Your task to perform on an android device: delete browsing data in the chrome app Image 0: 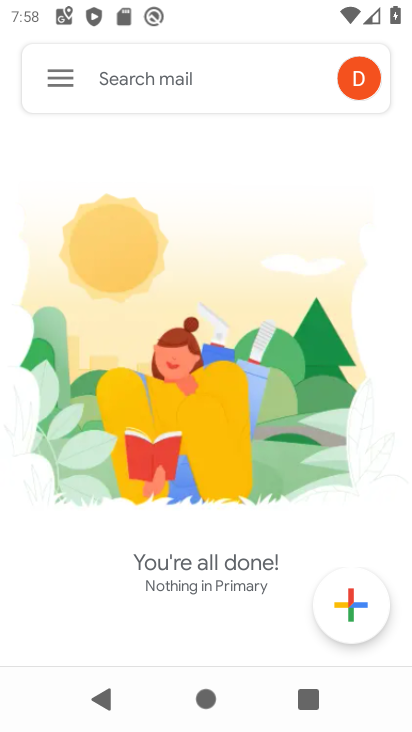
Step 0: press home button
Your task to perform on an android device: delete browsing data in the chrome app Image 1: 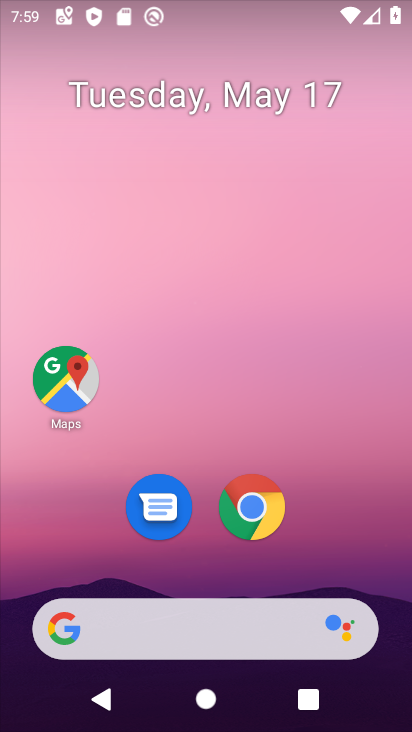
Step 1: click (260, 522)
Your task to perform on an android device: delete browsing data in the chrome app Image 2: 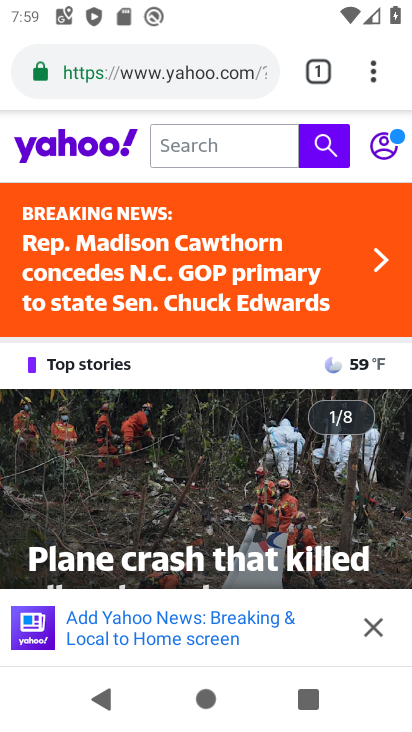
Step 2: click (379, 71)
Your task to perform on an android device: delete browsing data in the chrome app Image 3: 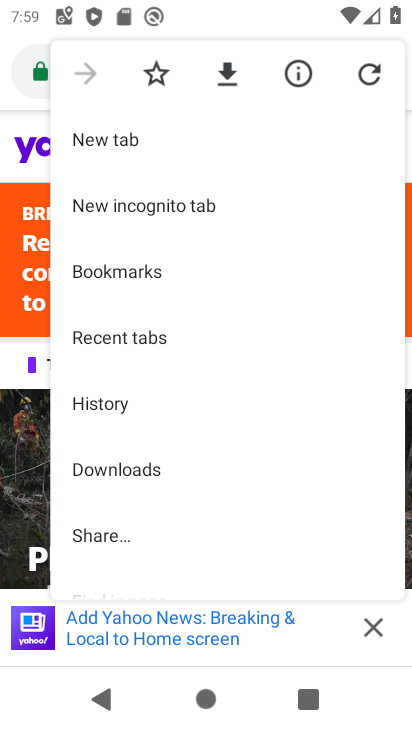
Step 3: drag from (197, 491) to (202, 128)
Your task to perform on an android device: delete browsing data in the chrome app Image 4: 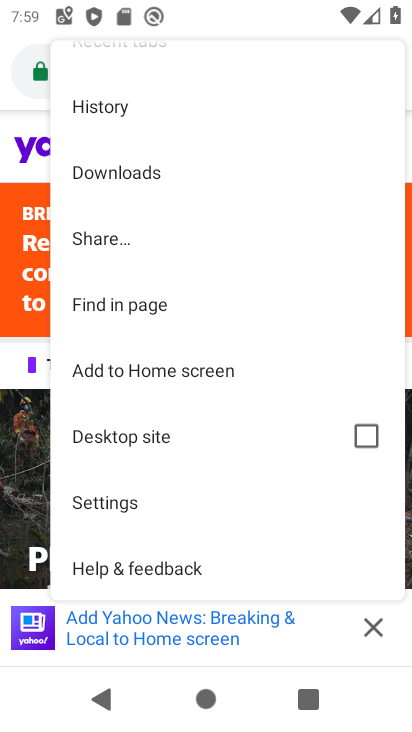
Step 4: click (109, 502)
Your task to perform on an android device: delete browsing data in the chrome app Image 5: 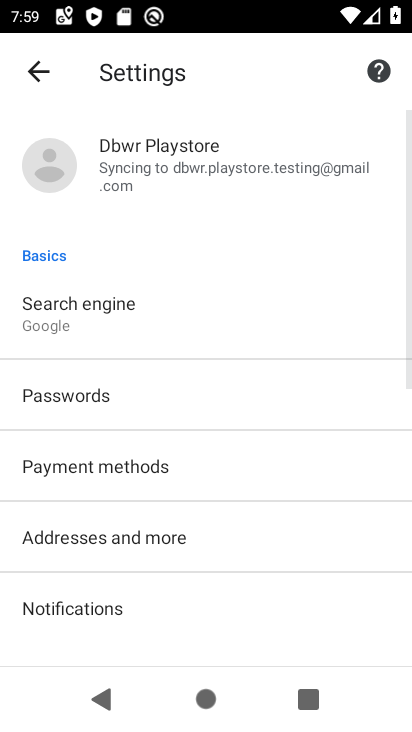
Step 5: drag from (197, 514) to (217, 108)
Your task to perform on an android device: delete browsing data in the chrome app Image 6: 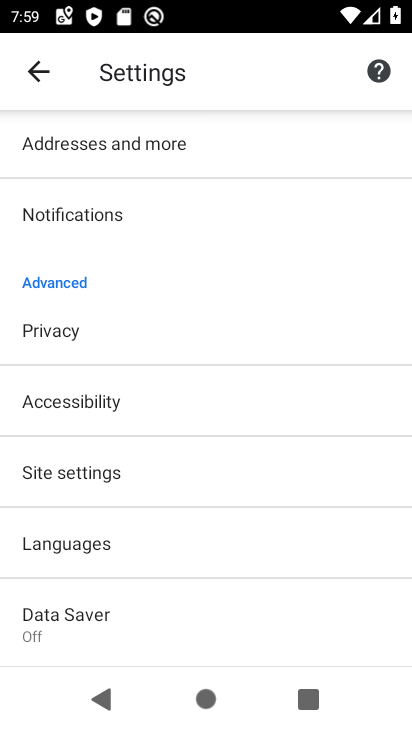
Step 6: click (46, 344)
Your task to perform on an android device: delete browsing data in the chrome app Image 7: 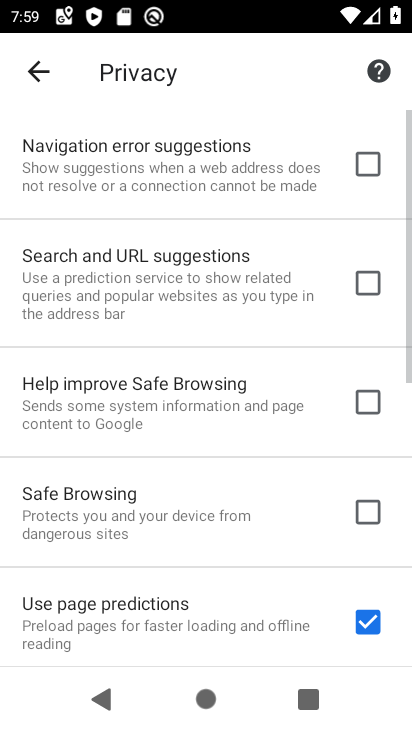
Step 7: drag from (173, 531) to (174, 32)
Your task to perform on an android device: delete browsing data in the chrome app Image 8: 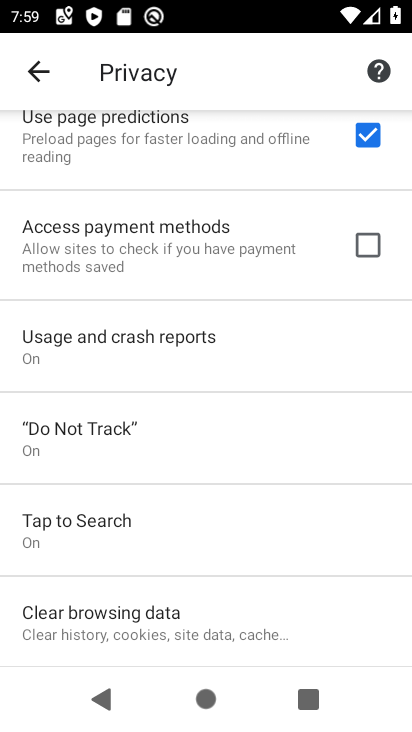
Step 8: drag from (148, 490) to (141, 82)
Your task to perform on an android device: delete browsing data in the chrome app Image 9: 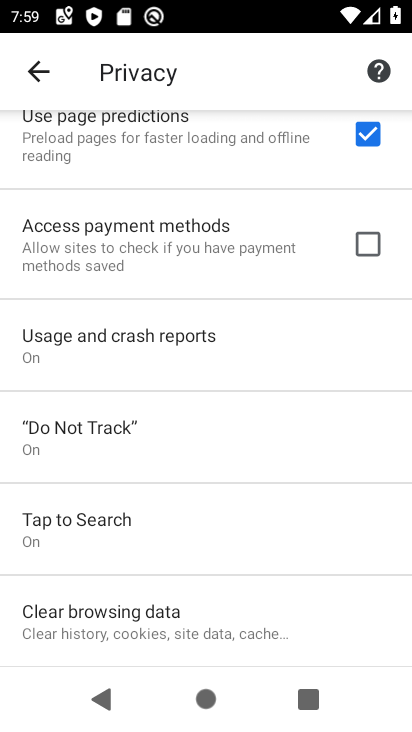
Step 9: click (111, 627)
Your task to perform on an android device: delete browsing data in the chrome app Image 10: 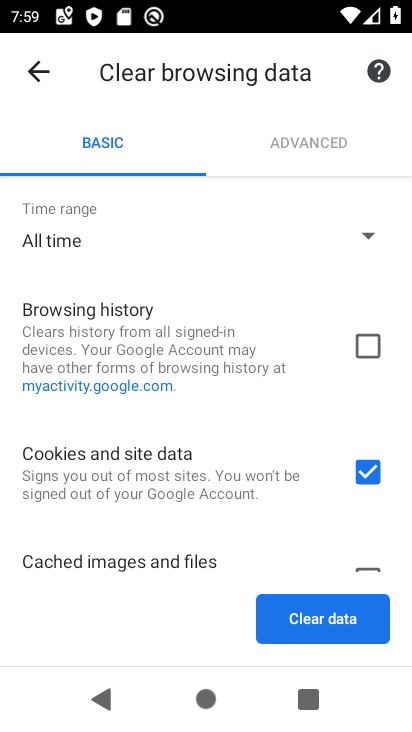
Step 10: drag from (169, 500) to (160, 419)
Your task to perform on an android device: delete browsing data in the chrome app Image 11: 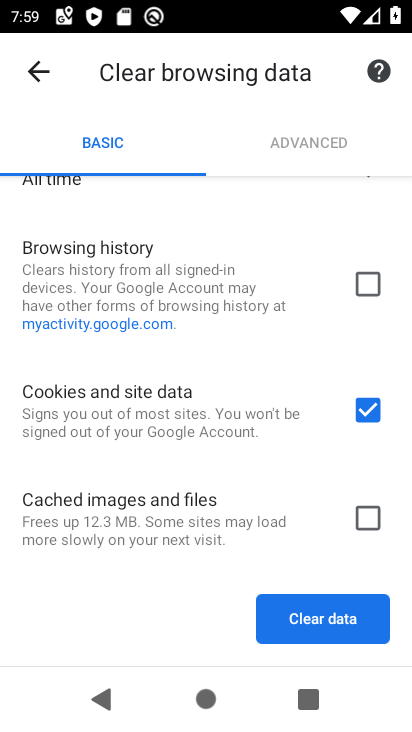
Step 11: click (365, 406)
Your task to perform on an android device: delete browsing data in the chrome app Image 12: 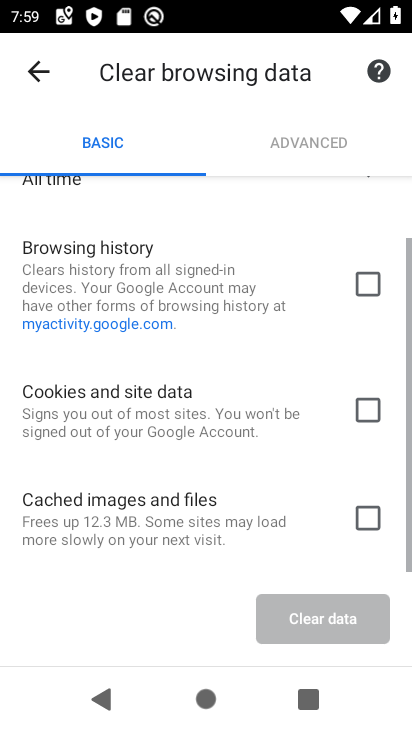
Step 12: click (370, 280)
Your task to perform on an android device: delete browsing data in the chrome app Image 13: 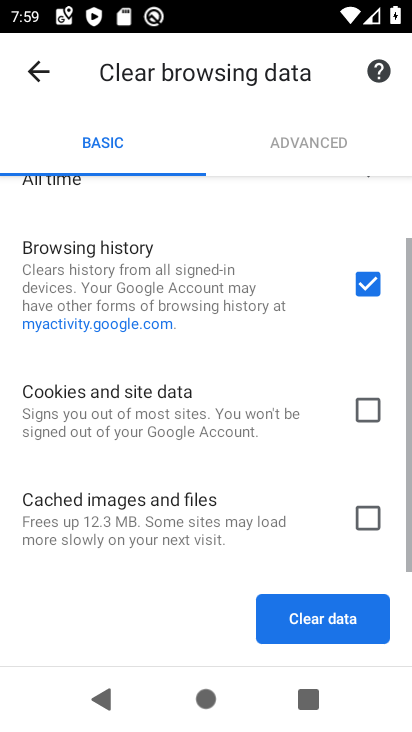
Step 13: drag from (200, 503) to (193, 263)
Your task to perform on an android device: delete browsing data in the chrome app Image 14: 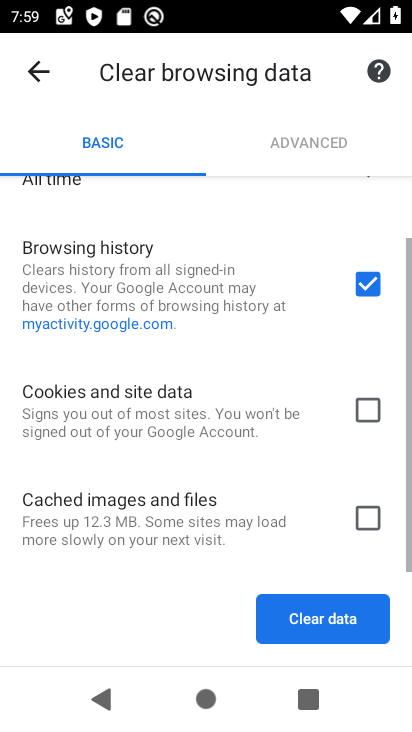
Step 14: click (313, 625)
Your task to perform on an android device: delete browsing data in the chrome app Image 15: 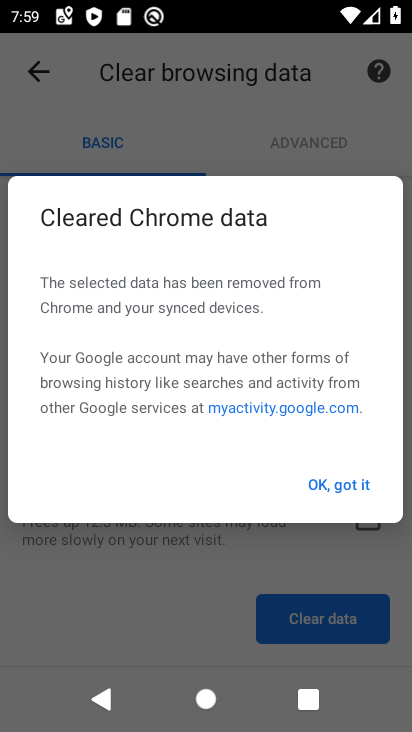
Step 15: click (332, 484)
Your task to perform on an android device: delete browsing data in the chrome app Image 16: 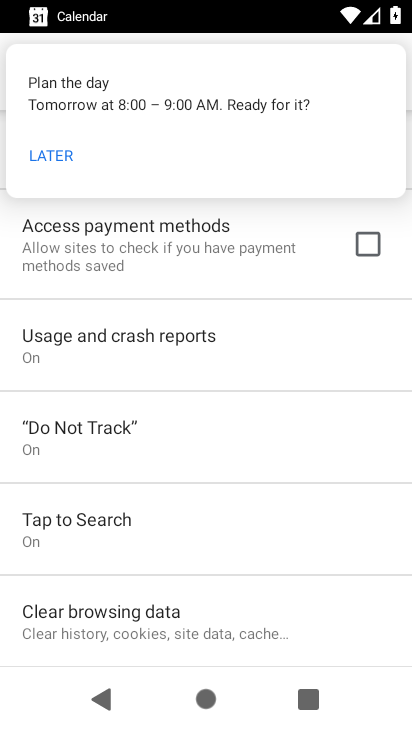
Step 16: task complete